Your task to perform on an android device: turn off translation in the chrome app Image 0: 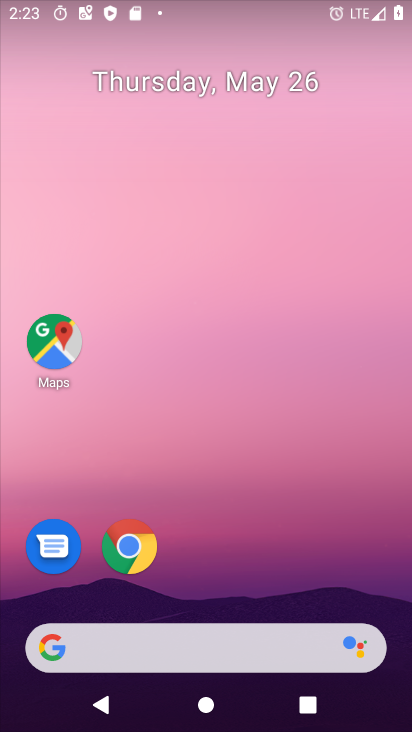
Step 0: click (117, 540)
Your task to perform on an android device: turn off translation in the chrome app Image 1: 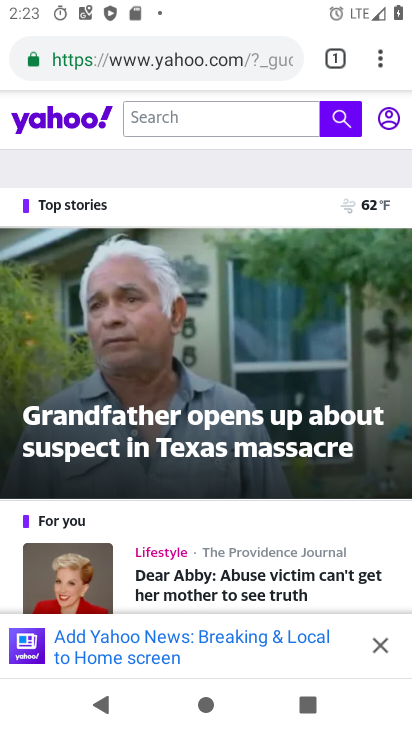
Step 1: click (367, 55)
Your task to perform on an android device: turn off translation in the chrome app Image 2: 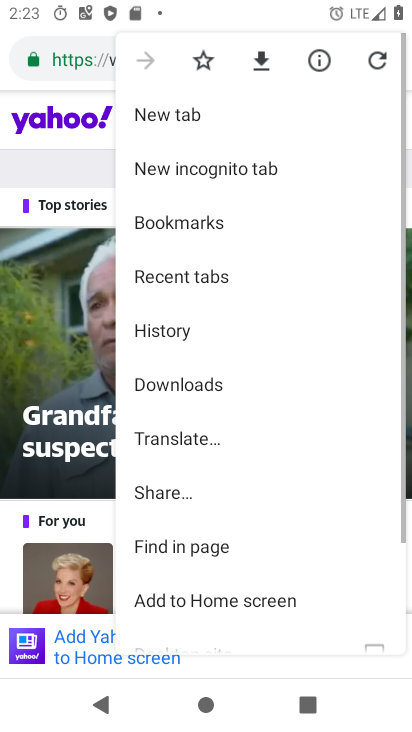
Step 2: drag from (219, 527) to (308, 128)
Your task to perform on an android device: turn off translation in the chrome app Image 3: 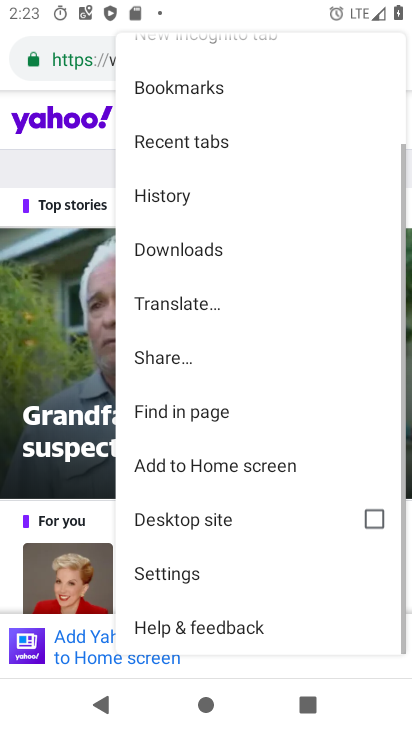
Step 3: click (192, 574)
Your task to perform on an android device: turn off translation in the chrome app Image 4: 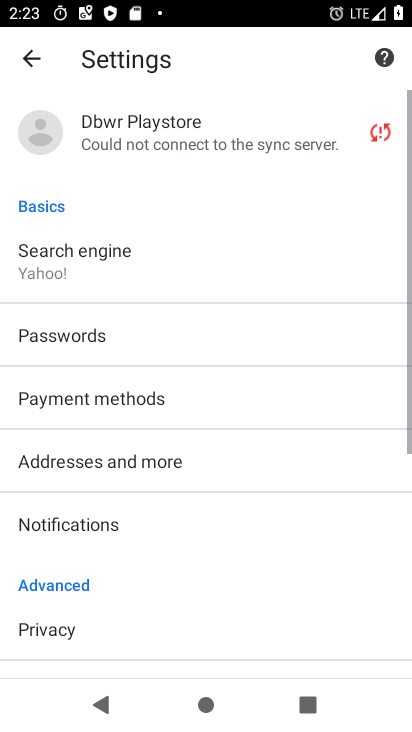
Step 4: drag from (308, 582) to (357, 33)
Your task to perform on an android device: turn off translation in the chrome app Image 5: 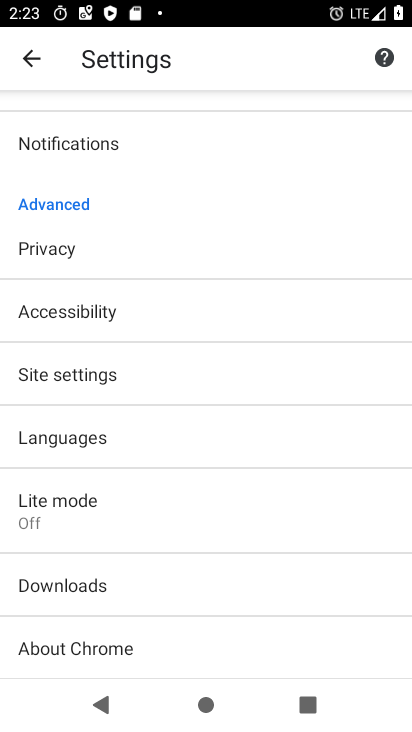
Step 5: click (90, 450)
Your task to perform on an android device: turn off translation in the chrome app Image 6: 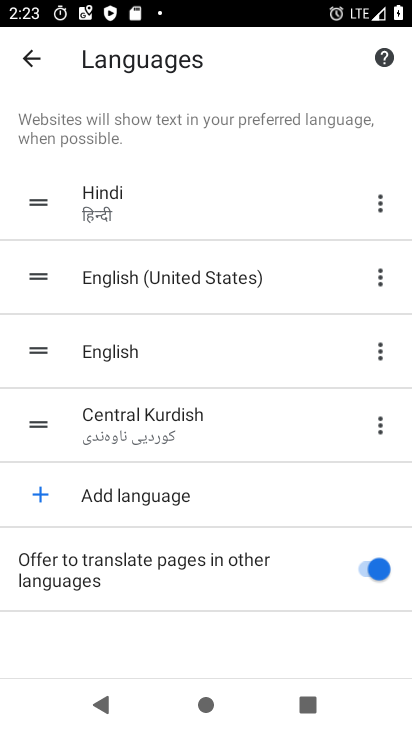
Step 6: click (387, 575)
Your task to perform on an android device: turn off translation in the chrome app Image 7: 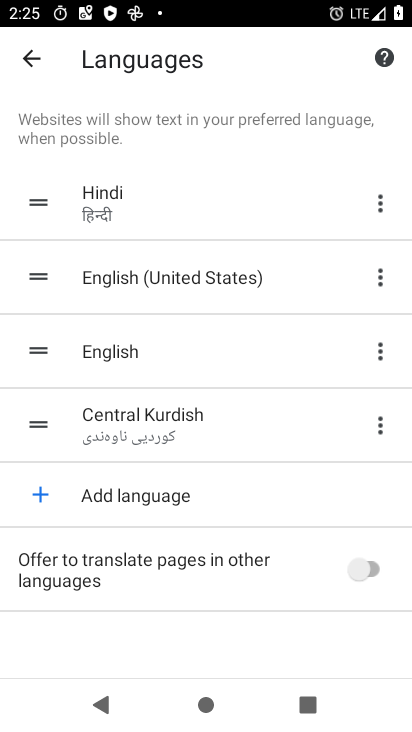
Step 7: task complete